Your task to perform on an android device: Go to Google Image 0: 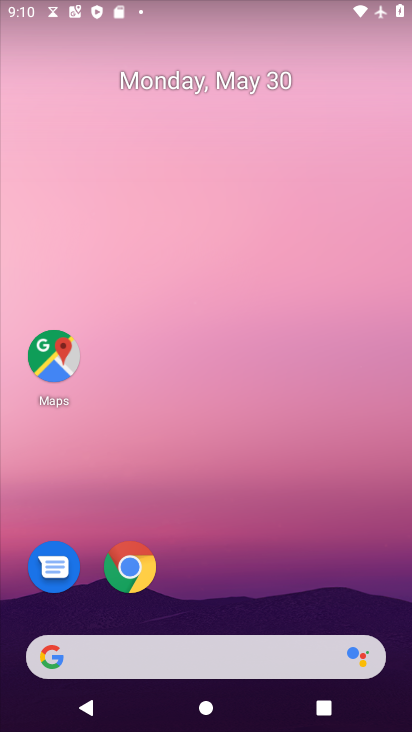
Step 0: drag from (286, 591) to (227, 230)
Your task to perform on an android device: Go to Google Image 1: 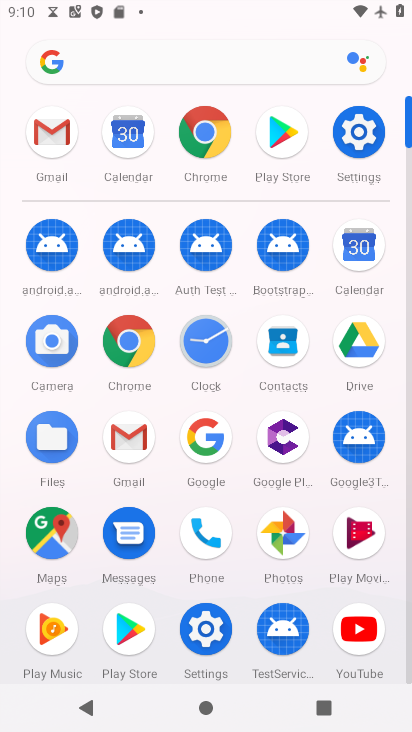
Step 1: click (204, 449)
Your task to perform on an android device: Go to Google Image 2: 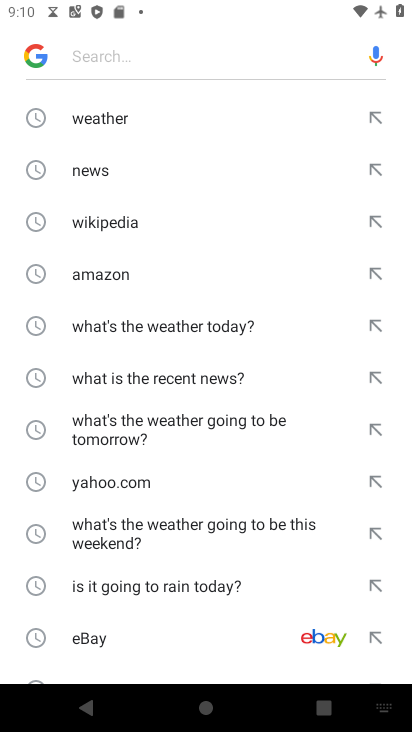
Step 2: task complete